Your task to perform on an android device: change the clock display to analog Image 0: 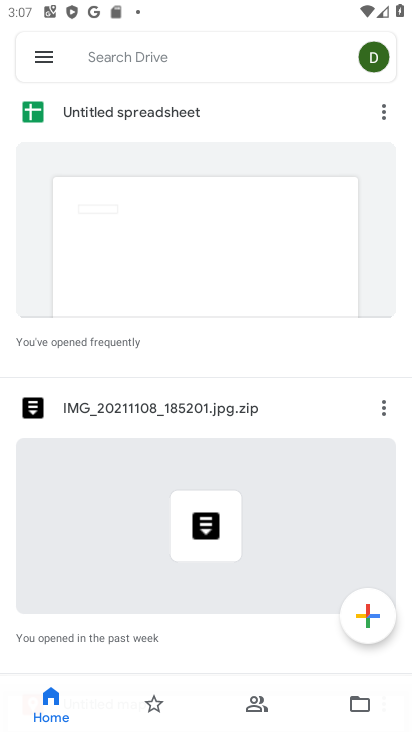
Step 0: press home button
Your task to perform on an android device: change the clock display to analog Image 1: 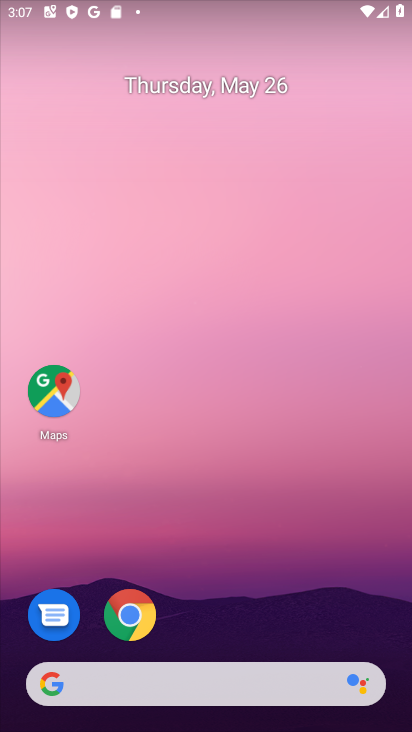
Step 1: drag from (205, 617) to (286, 81)
Your task to perform on an android device: change the clock display to analog Image 2: 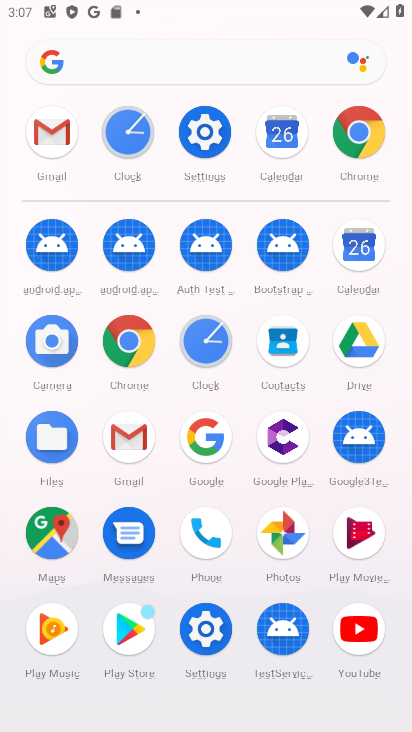
Step 2: click (124, 144)
Your task to perform on an android device: change the clock display to analog Image 3: 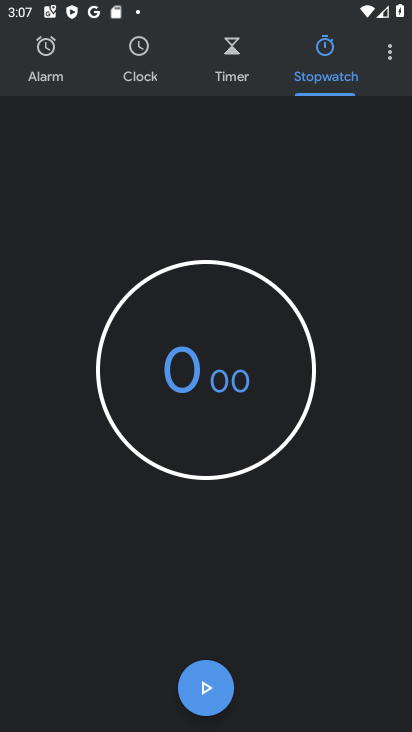
Step 3: click (389, 61)
Your task to perform on an android device: change the clock display to analog Image 4: 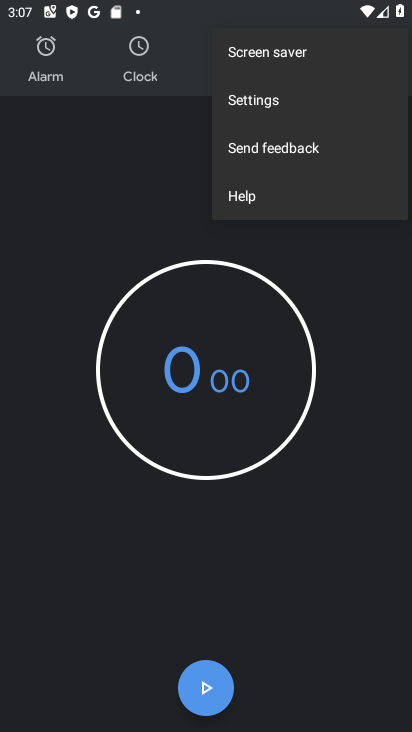
Step 4: click (309, 97)
Your task to perform on an android device: change the clock display to analog Image 5: 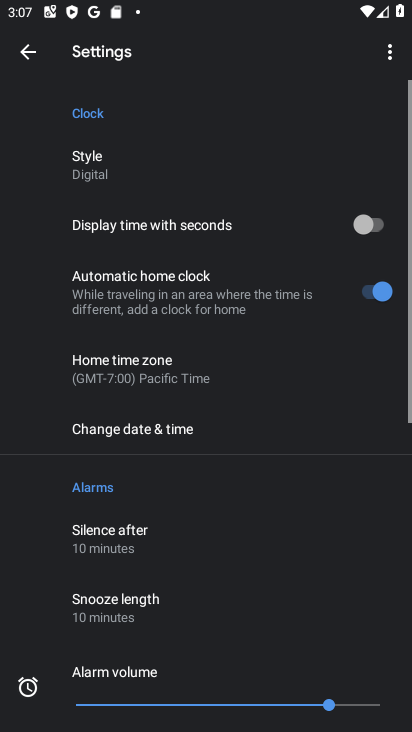
Step 5: click (112, 171)
Your task to perform on an android device: change the clock display to analog Image 6: 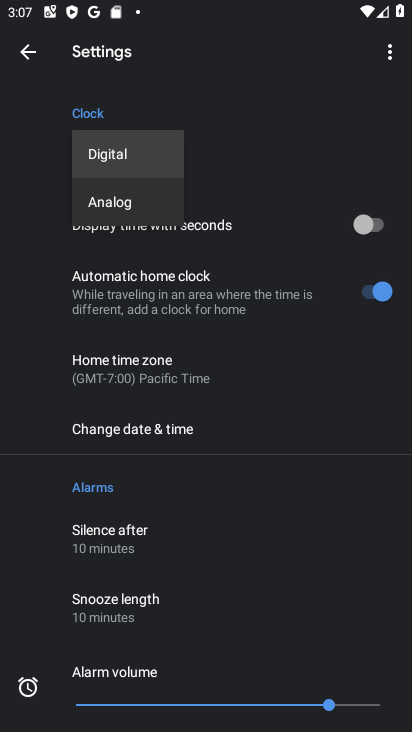
Step 6: click (124, 201)
Your task to perform on an android device: change the clock display to analog Image 7: 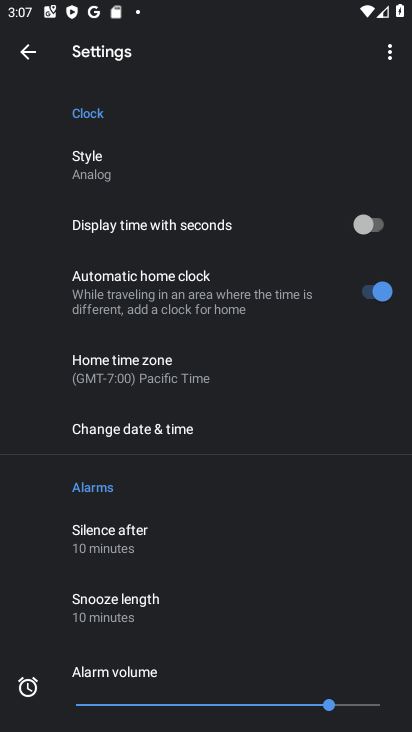
Step 7: task complete